Your task to perform on an android device: Go to Amazon Image 0: 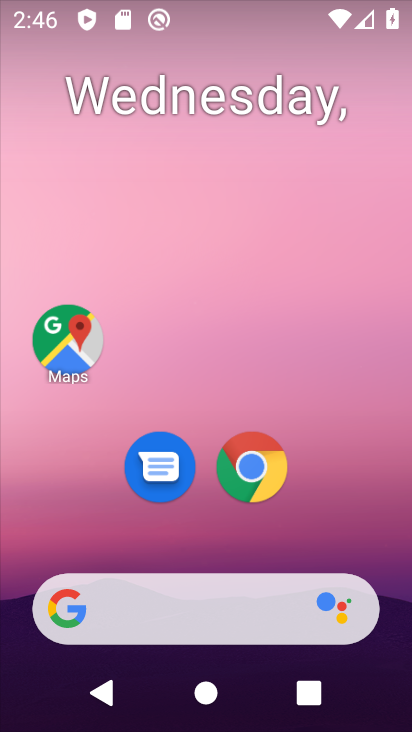
Step 0: click (258, 483)
Your task to perform on an android device: Go to Amazon Image 1: 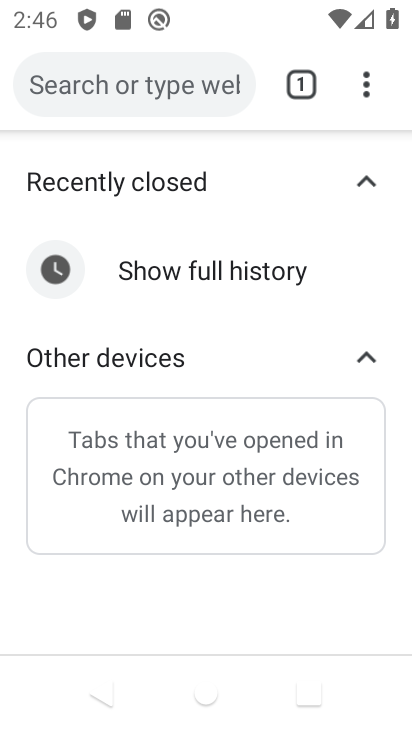
Step 1: drag from (371, 74) to (281, 182)
Your task to perform on an android device: Go to Amazon Image 2: 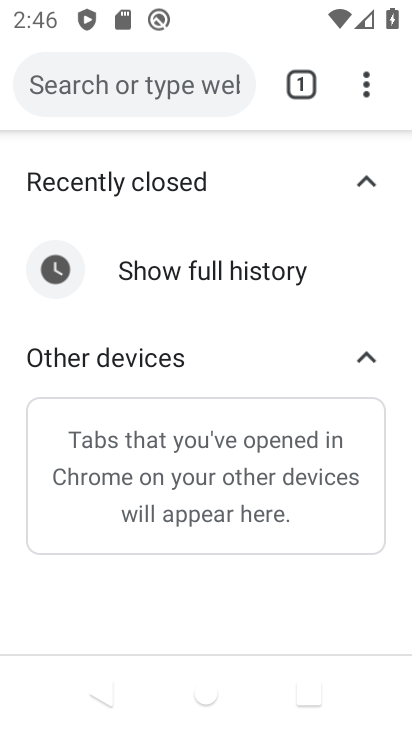
Step 2: click (217, 168)
Your task to perform on an android device: Go to Amazon Image 3: 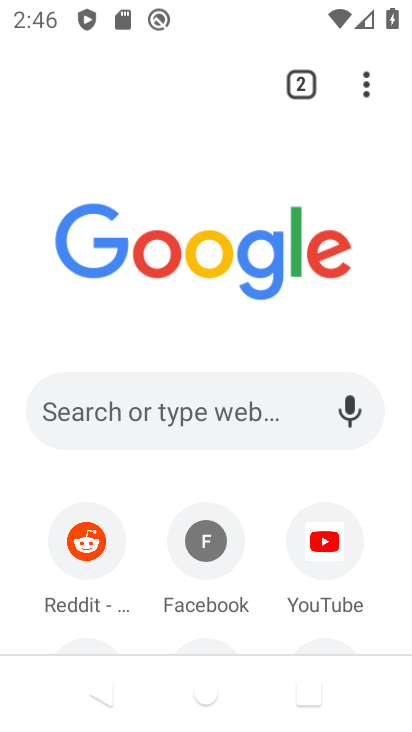
Step 3: drag from (174, 560) to (245, 224)
Your task to perform on an android device: Go to Amazon Image 4: 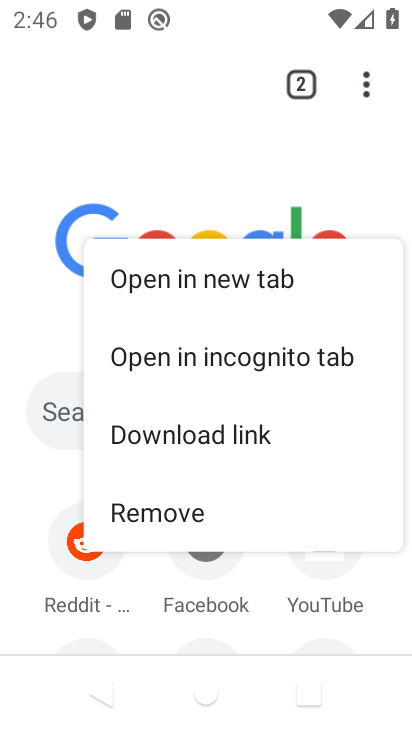
Step 4: press back button
Your task to perform on an android device: Go to Amazon Image 5: 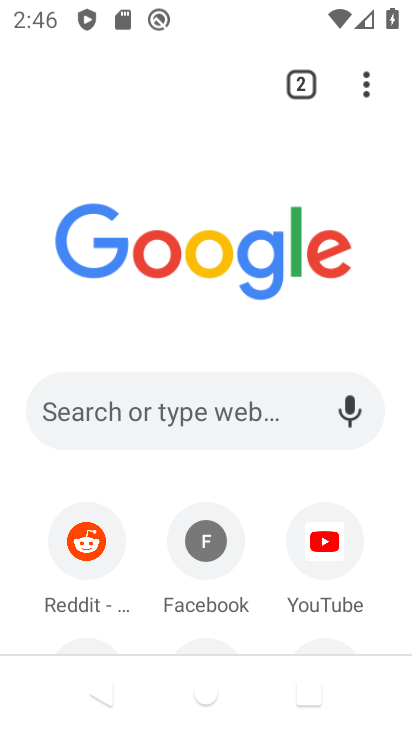
Step 5: drag from (244, 596) to (325, 145)
Your task to perform on an android device: Go to Amazon Image 6: 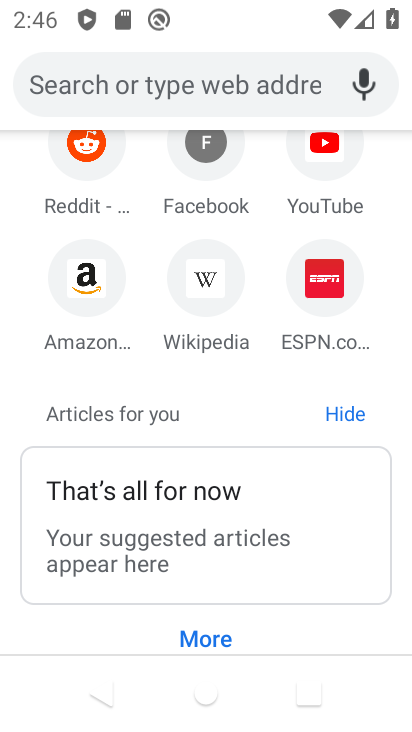
Step 6: click (69, 286)
Your task to perform on an android device: Go to Amazon Image 7: 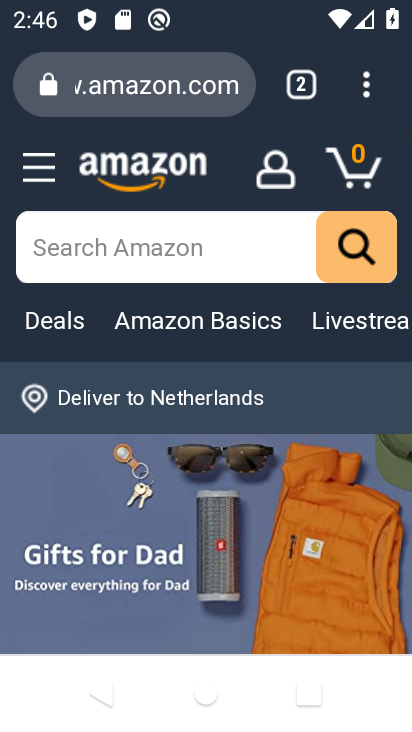
Step 7: task complete